Your task to perform on an android device: Open Youtube and go to "Your channel" Image 0: 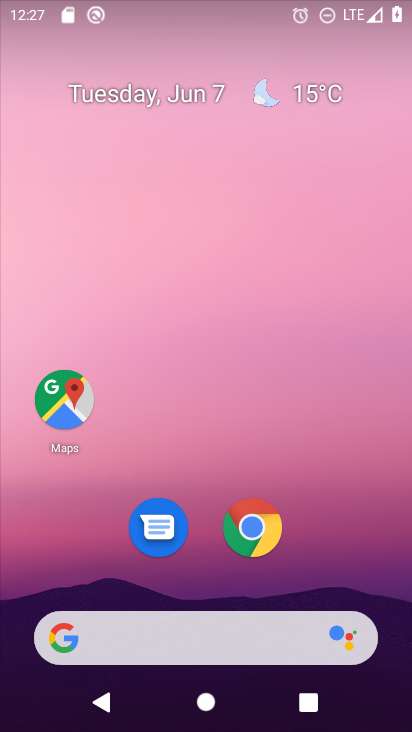
Step 0: drag from (353, 564) to (355, 152)
Your task to perform on an android device: Open Youtube and go to "Your channel" Image 1: 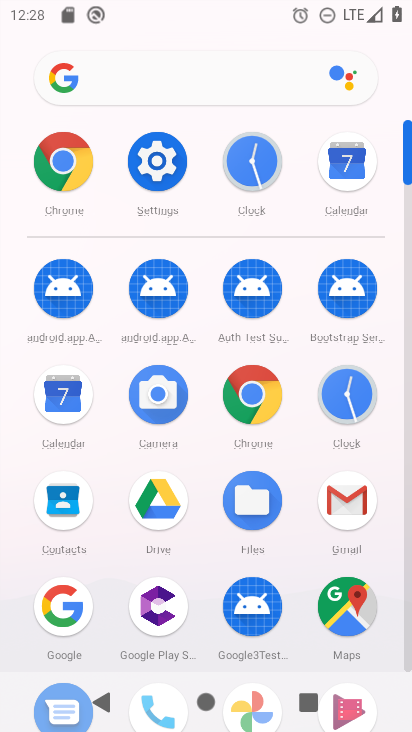
Step 1: drag from (291, 494) to (297, 280)
Your task to perform on an android device: Open Youtube and go to "Your channel" Image 2: 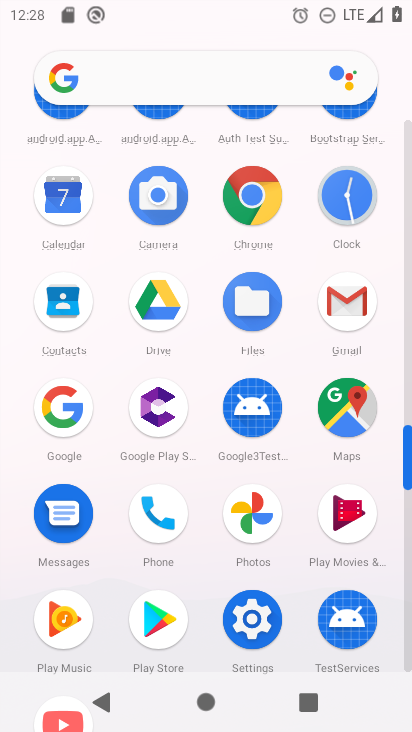
Step 2: drag from (294, 581) to (294, 318)
Your task to perform on an android device: Open Youtube and go to "Your channel" Image 3: 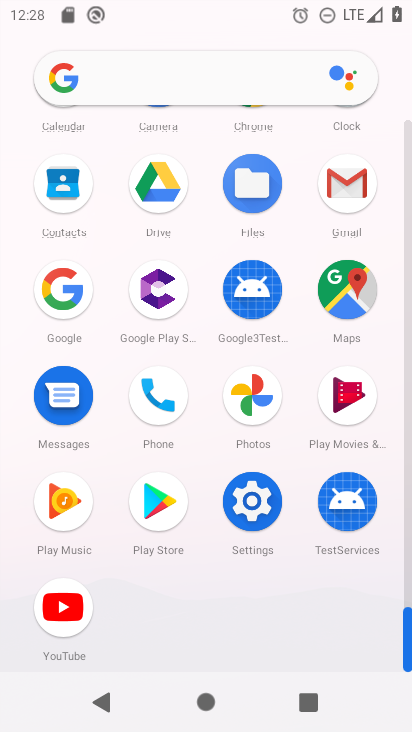
Step 3: click (65, 603)
Your task to perform on an android device: Open Youtube and go to "Your channel" Image 4: 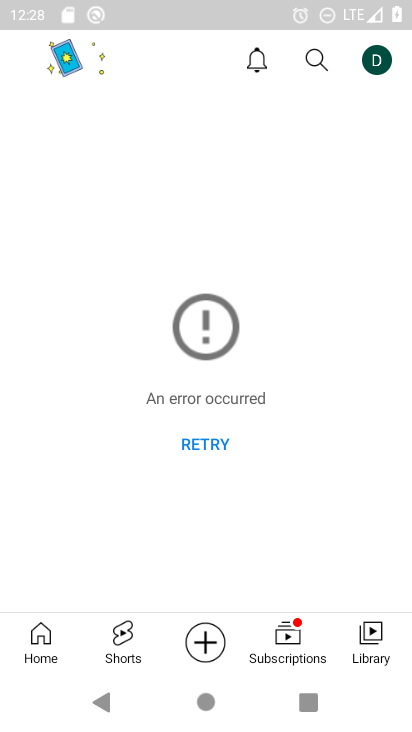
Step 4: click (380, 65)
Your task to perform on an android device: Open Youtube and go to "Your channel" Image 5: 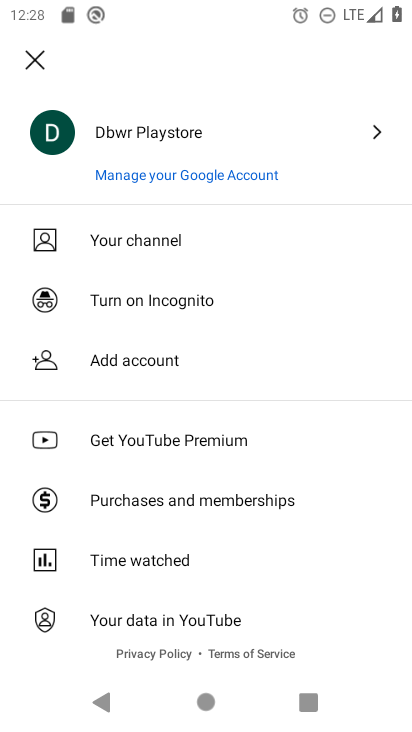
Step 5: click (209, 253)
Your task to perform on an android device: Open Youtube and go to "Your channel" Image 6: 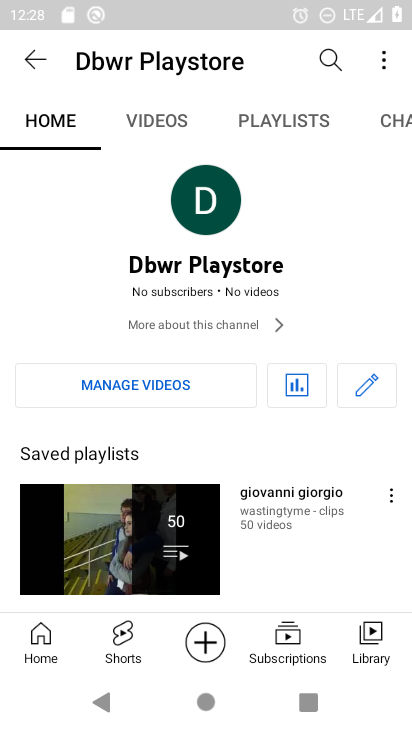
Step 6: task complete